Your task to perform on an android device: refresh tabs in the chrome app Image 0: 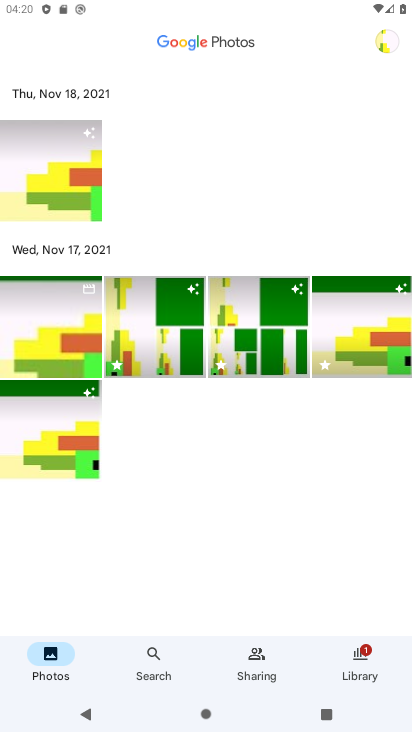
Step 0: press back button
Your task to perform on an android device: refresh tabs in the chrome app Image 1: 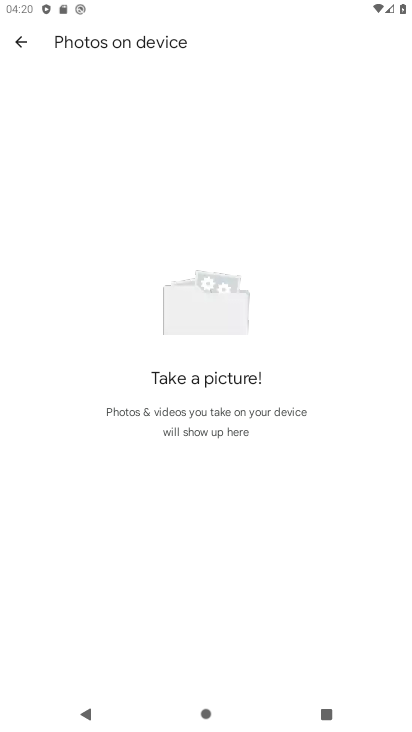
Step 1: press back button
Your task to perform on an android device: refresh tabs in the chrome app Image 2: 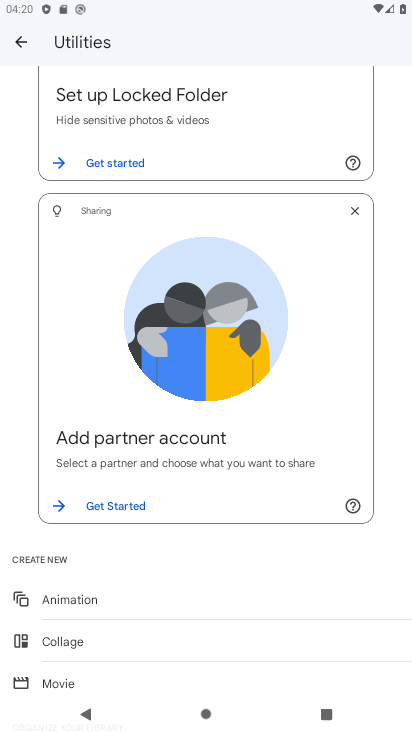
Step 2: press back button
Your task to perform on an android device: refresh tabs in the chrome app Image 3: 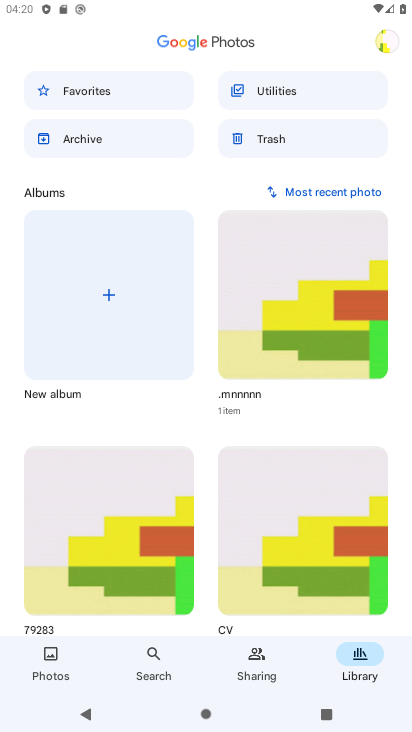
Step 3: press back button
Your task to perform on an android device: refresh tabs in the chrome app Image 4: 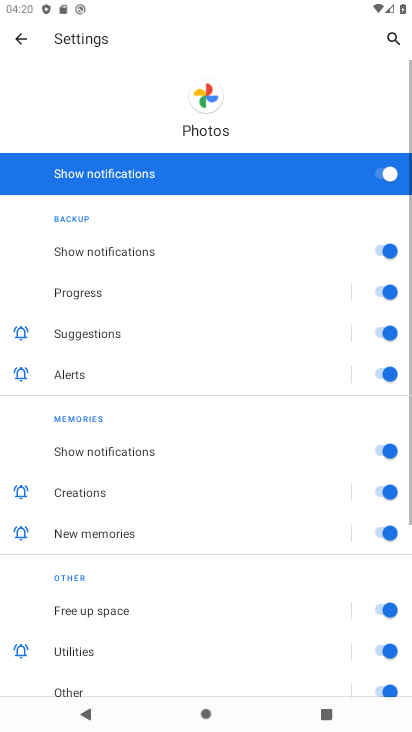
Step 4: press back button
Your task to perform on an android device: refresh tabs in the chrome app Image 5: 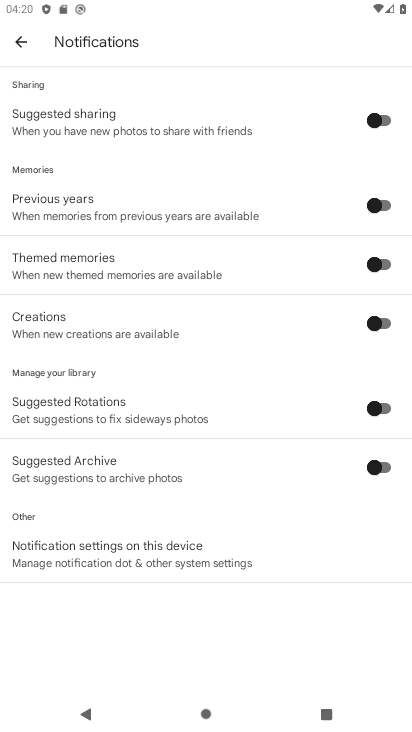
Step 5: press back button
Your task to perform on an android device: refresh tabs in the chrome app Image 6: 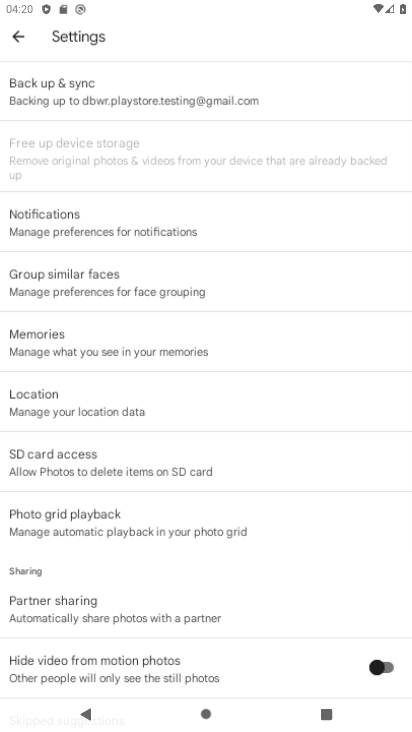
Step 6: press back button
Your task to perform on an android device: refresh tabs in the chrome app Image 7: 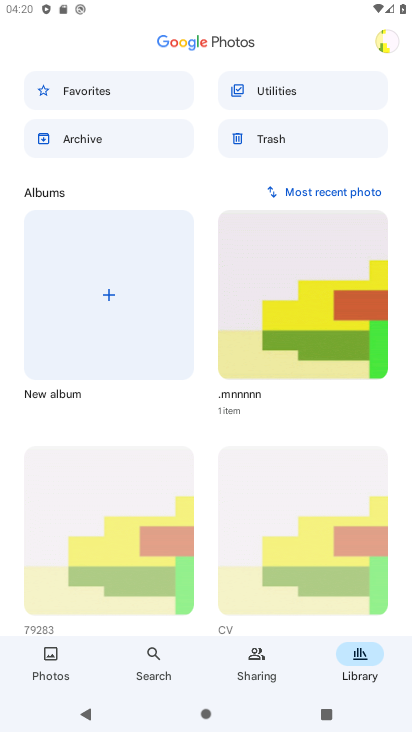
Step 7: press back button
Your task to perform on an android device: refresh tabs in the chrome app Image 8: 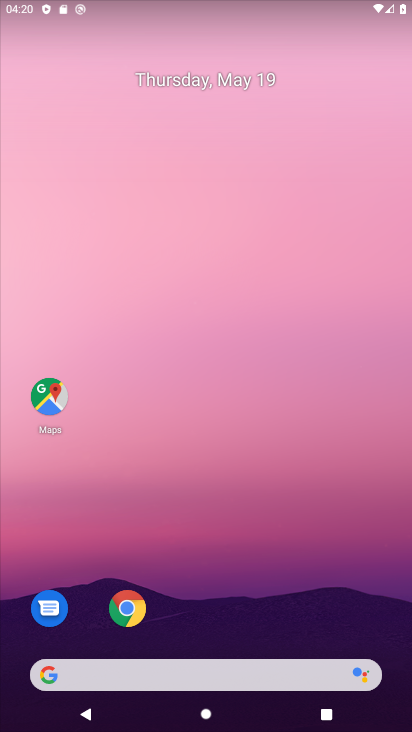
Step 8: click (129, 606)
Your task to perform on an android device: refresh tabs in the chrome app Image 9: 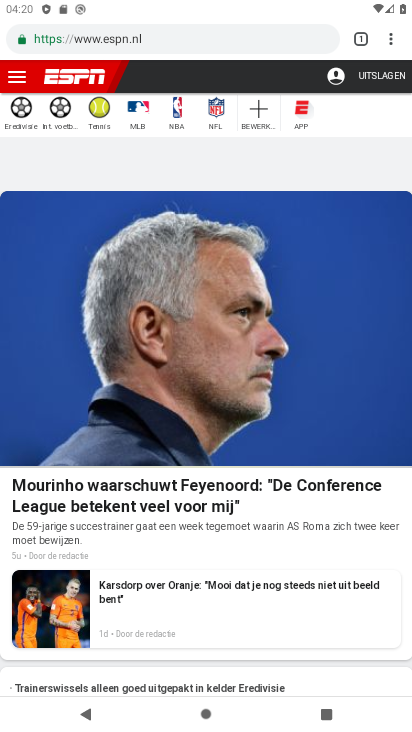
Step 9: click (391, 39)
Your task to perform on an android device: refresh tabs in the chrome app Image 10: 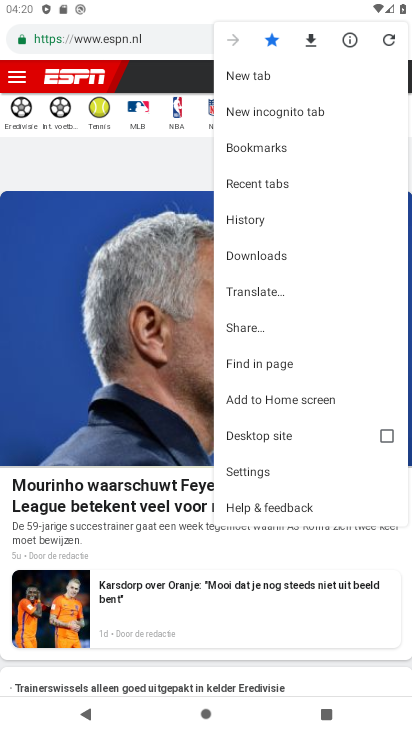
Step 10: click (391, 39)
Your task to perform on an android device: refresh tabs in the chrome app Image 11: 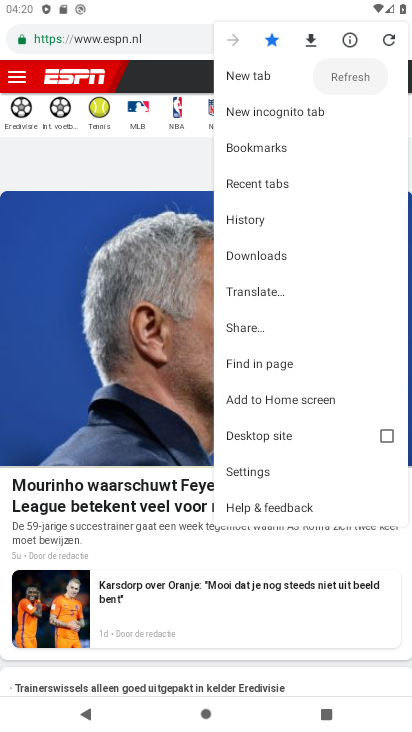
Step 11: click (391, 39)
Your task to perform on an android device: refresh tabs in the chrome app Image 12: 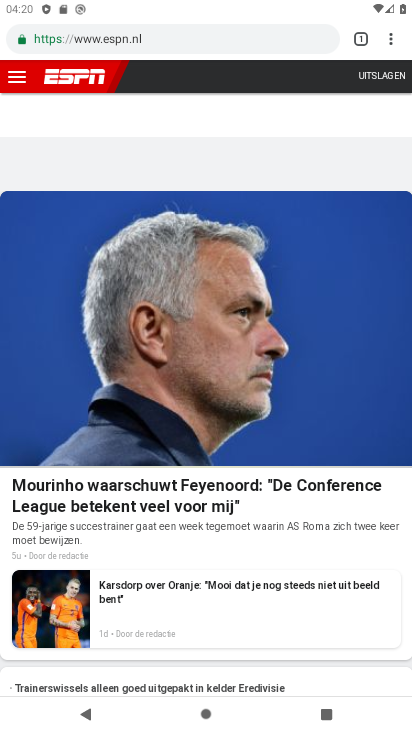
Step 12: task complete